Your task to perform on an android device: Look up the best rated gaming chair on Best Buy Image 0: 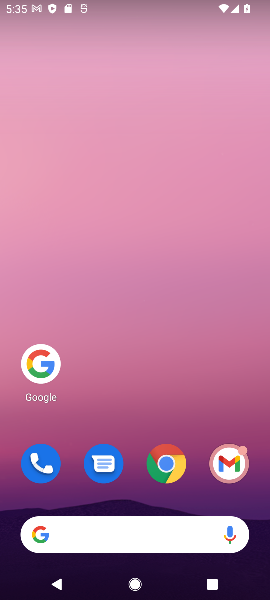
Step 0: click (46, 367)
Your task to perform on an android device: Look up the best rated gaming chair on Best Buy Image 1: 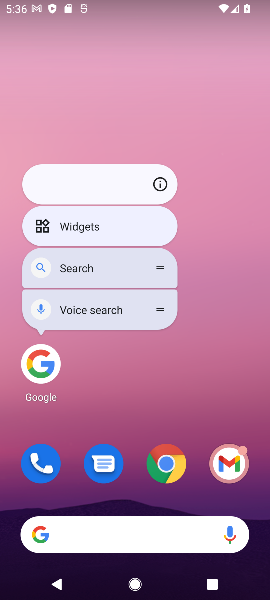
Step 1: click (42, 357)
Your task to perform on an android device: Look up the best rated gaming chair on Best Buy Image 2: 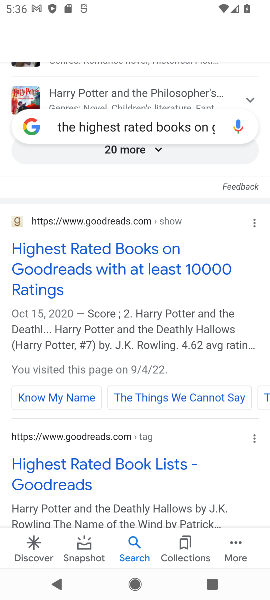
Step 2: click (99, 115)
Your task to perform on an android device: Look up the best rated gaming chair on Best Buy Image 3: 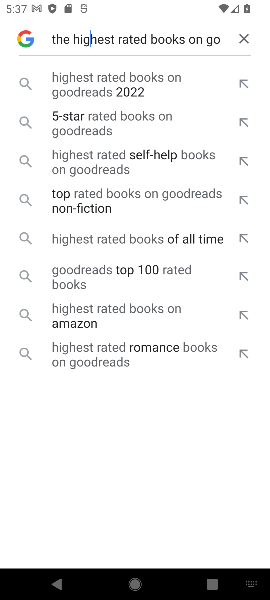
Step 3: click (239, 35)
Your task to perform on an android device: Look up the best rated gaming chair on Best Buy Image 4: 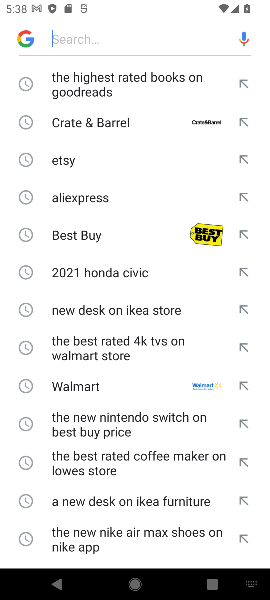
Step 4: click (148, 27)
Your task to perform on an android device: Look up the best rated gaming chair on Best Buy Image 5: 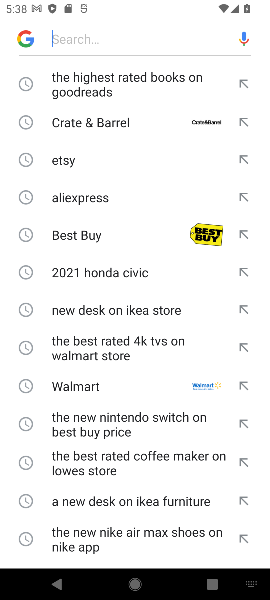
Step 5: type " best rated gaming chair on Best Buy "
Your task to perform on an android device: Look up the best rated gaming chair on Best Buy Image 6: 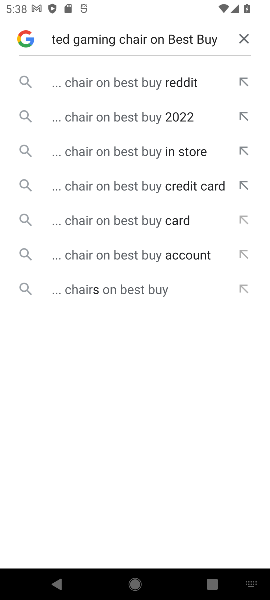
Step 6: click (159, 85)
Your task to perform on an android device: Look up the best rated gaming chair on Best Buy Image 7: 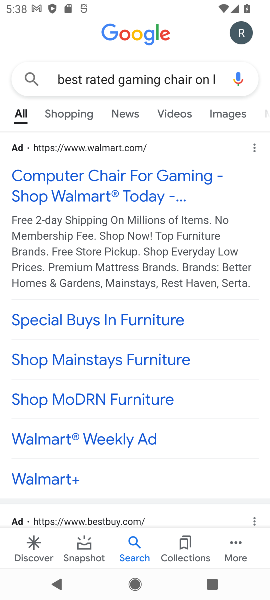
Step 7: task complete